Your task to perform on an android device: turn off notifications settings in the gmail app Image 0: 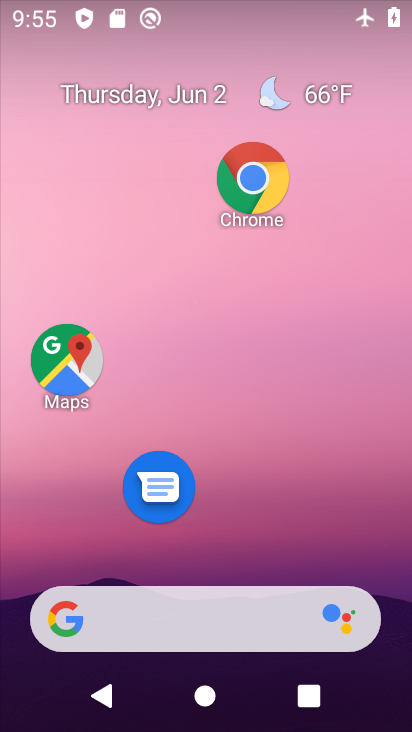
Step 0: drag from (231, 730) to (231, 56)
Your task to perform on an android device: turn off notifications settings in the gmail app Image 1: 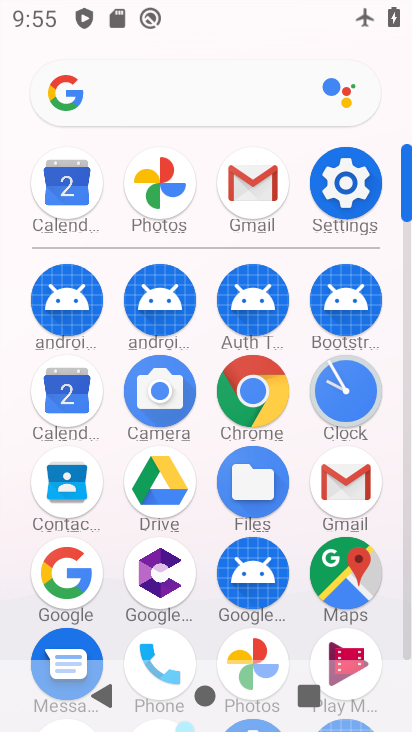
Step 1: click (351, 473)
Your task to perform on an android device: turn off notifications settings in the gmail app Image 2: 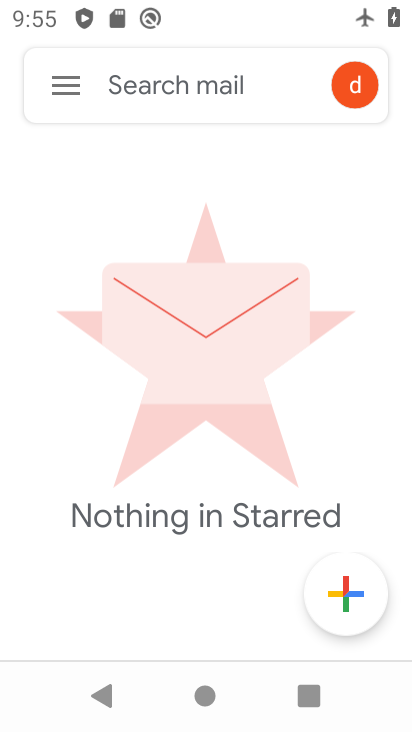
Step 2: click (58, 75)
Your task to perform on an android device: turn off notifications settings in the gmail app Image 3: 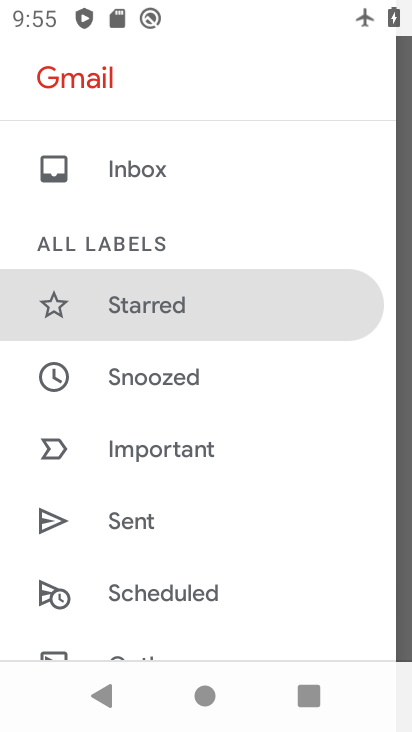
Step 3: drag from (152, 626) to (162, 228)
Your task to perform on an android device: turn off notifications settings in the gmail app Image 4: 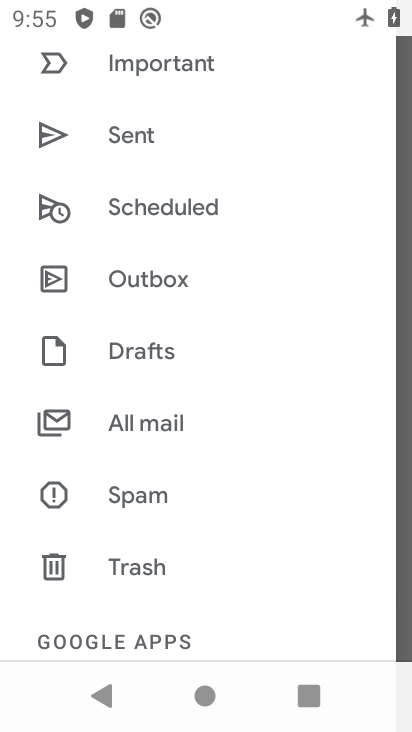
Step 4: drag from (159, 429) to (163, 147)
Your task to perform on an android device: turn off notifications settings in the gmail app Image 5: 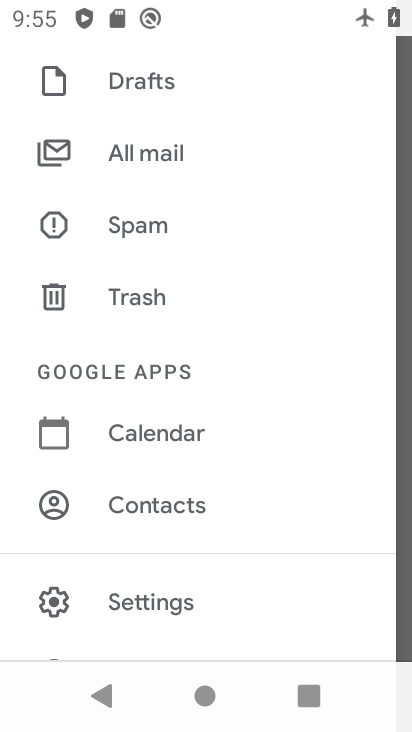
Step 5: click (147, 603)
Your task to perform on an android device: turn off notifications settings in the gmail app Image 6: 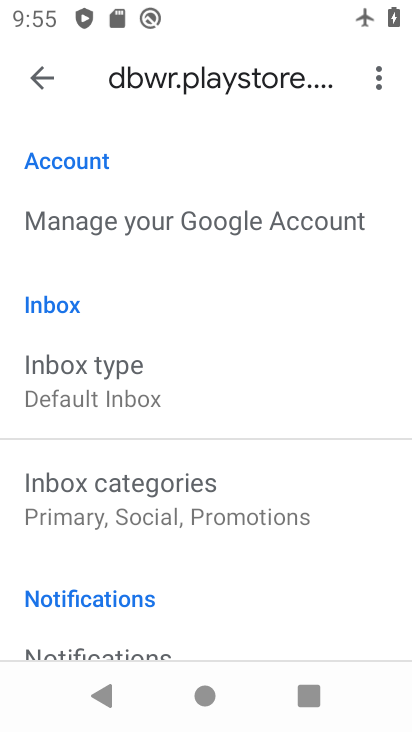
Step 6: task complete